Your task to perform on an android device: Turn off the flashlight Image 0: 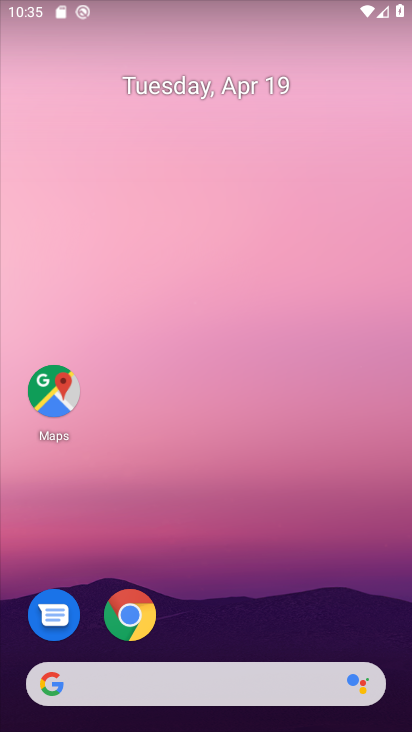
Step 0: drag from (240, 305) to (240, 75)
Your task to perform on an android device: Turn off the flashlight Image 1: 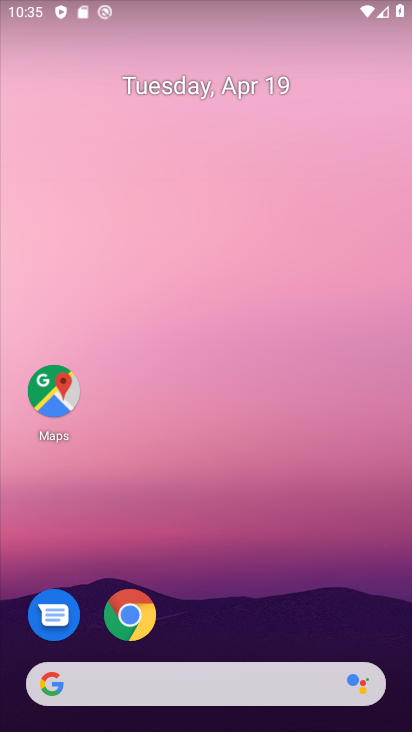
Step 1: drag from (185, 358) to (183, 110)
Your task to perform on an android device: Turn off the flashlight Image 2: 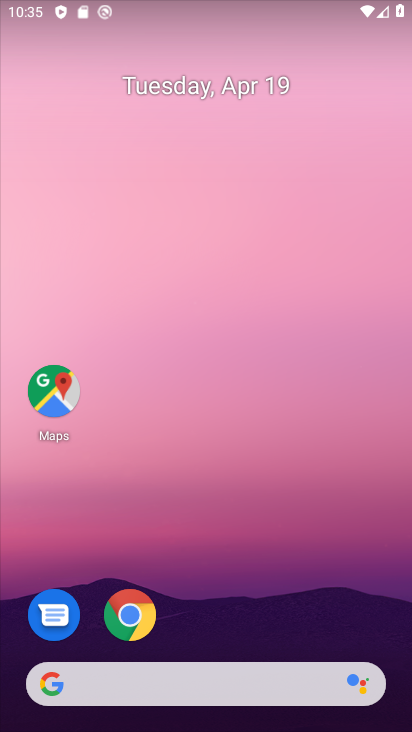
Step 2: drag from (215, 309) to (221, 98)
Your task to perform on an android device: Turn off the flashlight Image 3: 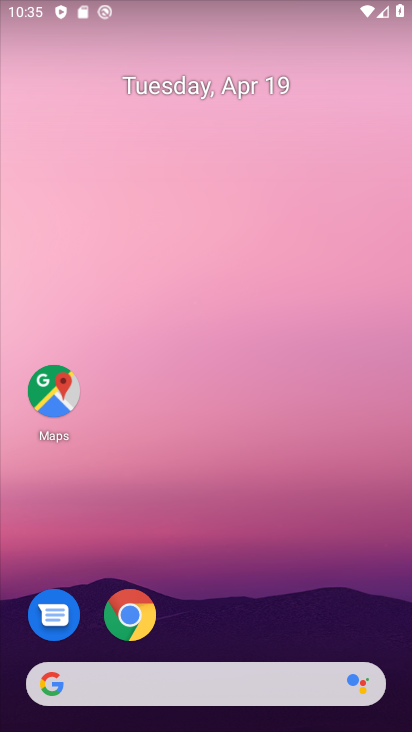
Step 3: drag from (222, 367) to (234, 51)
Your task to perform on an android device: Turn off the flashlight Image 4: 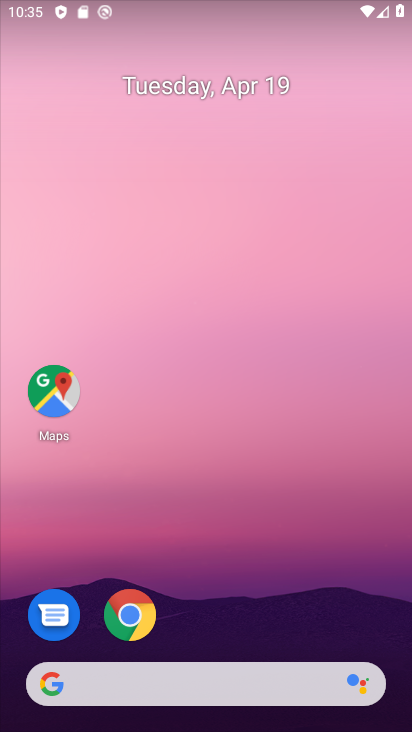
Step 4: drag from (220, 621) to (237, 91)
Your task to perform on an android device: Turn off the flashlight Image 5: 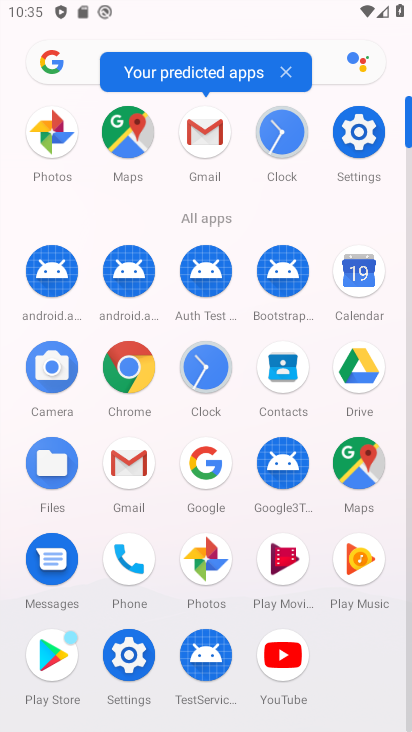
Step 5: click (343, 110)
Your task to perform on an android device: Turn off the flashlight Image 6: 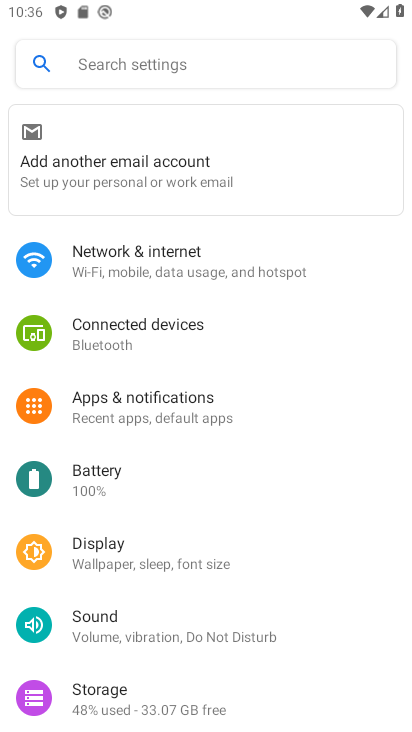
Step 6: task complete